Your task to perform on an android device: Open maps Image 0: 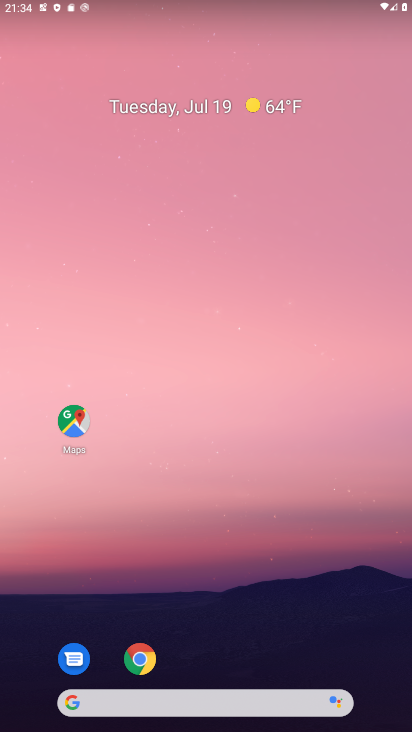
Step 0: click (79, 412)
Your task to perform on an android device: Open maps Image 1: 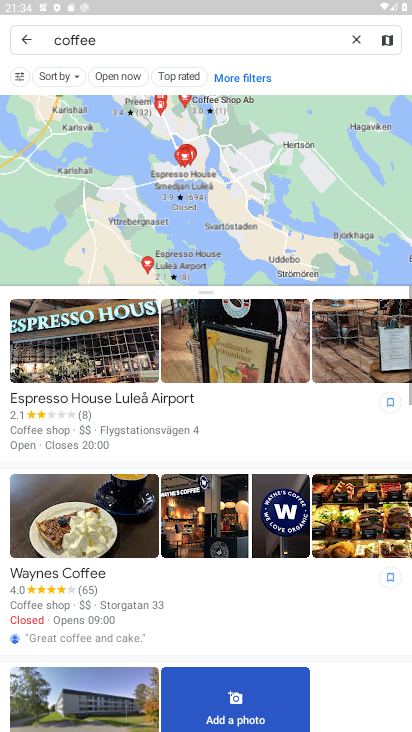
Step 1: task complete